Your task to perform on an android device: toggle wifi Image 0: 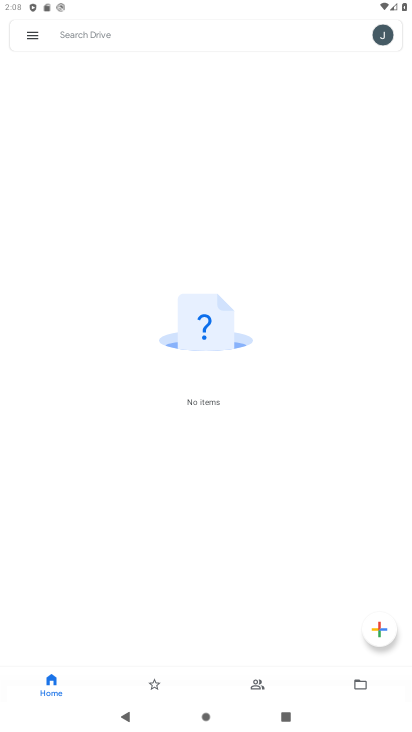
Step 0: press home button
Your task to perform on an android device: toggle wifi Image 1: 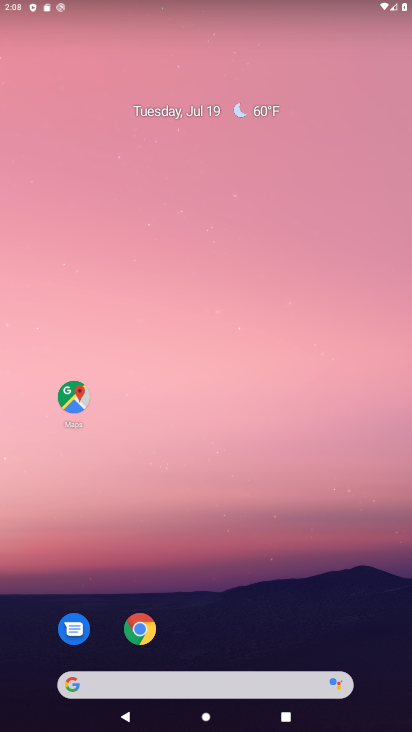
Step 1: drag from (215, 621) to (207, 143)
Your task to perform on an android device: toggle wifi Image 2: 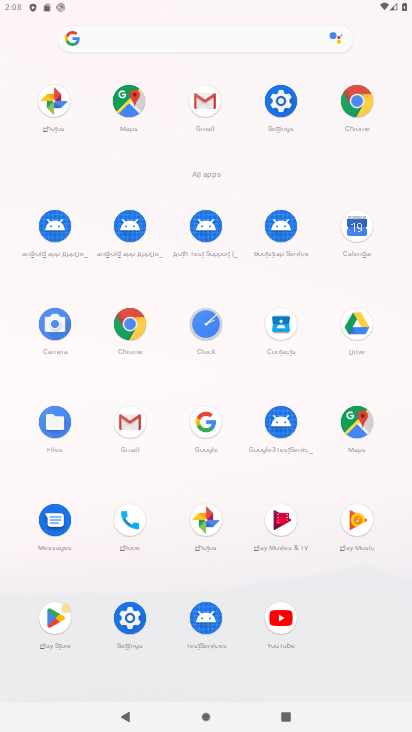
Step 2: click (267, 102)
Your task to perform on an android device: toggle wifi Image 3: 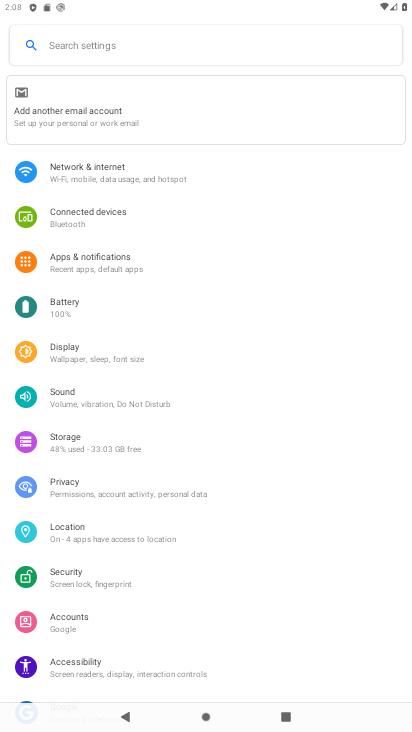
Step 3: click (119, 166)
Your task to perform on an android device: toggle wifi Image 4: 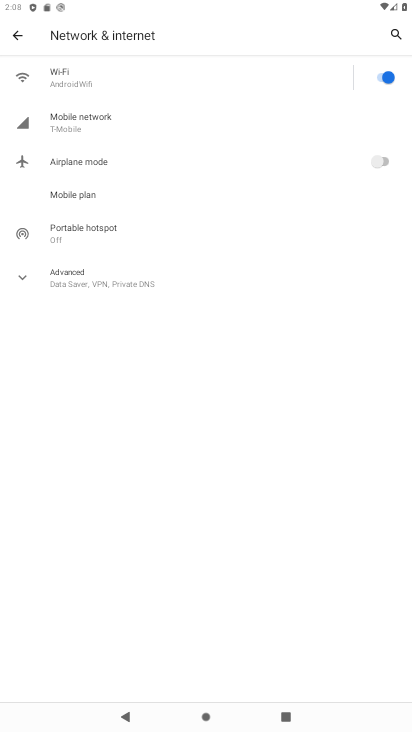
Step 4: click (372, 80)
Your task to perform on an android device: toggle wifi Image 5: 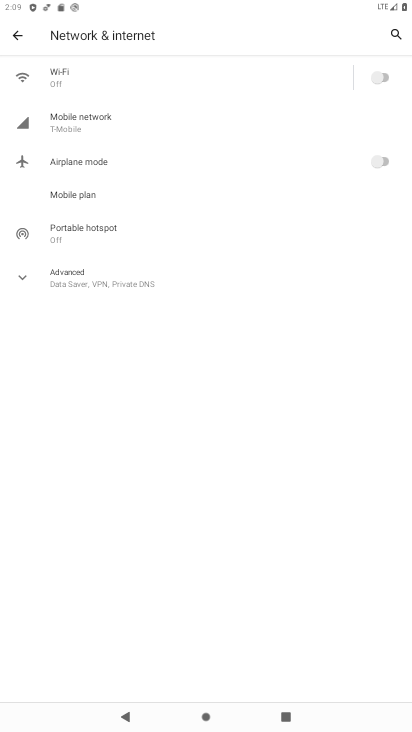
Step 5: task complete